Your task to perform on an android device: Open location settings Image 0: 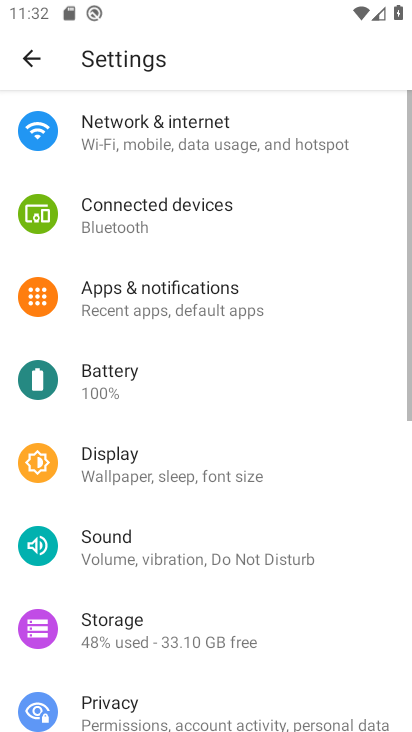
Step 0: drag from (150, 666) to (217, 253)
Your task to perform on an android device: Open location settings Image 1: 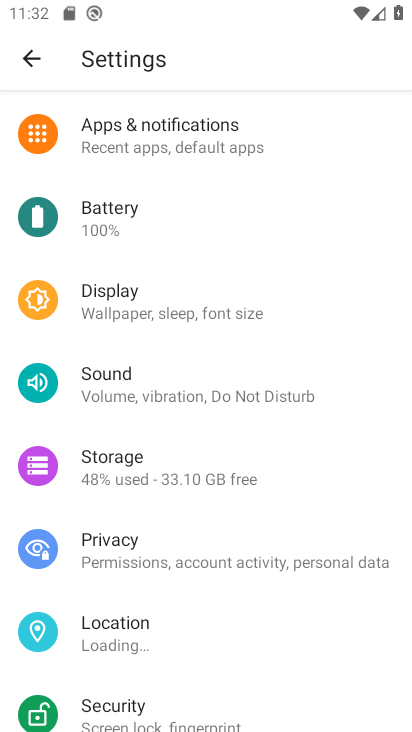
Step 1: click (140, 645)
Your task to perform on an android device: Open location settings Image 2: 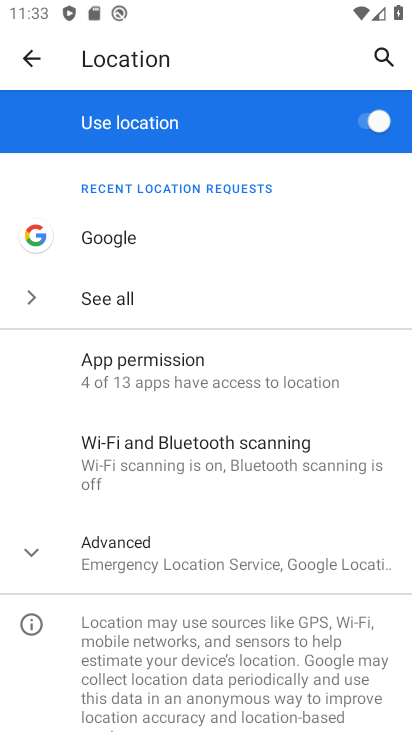
Step 2: click (35, 551)
Your task to perform on an android device: Open location settings Image 3: 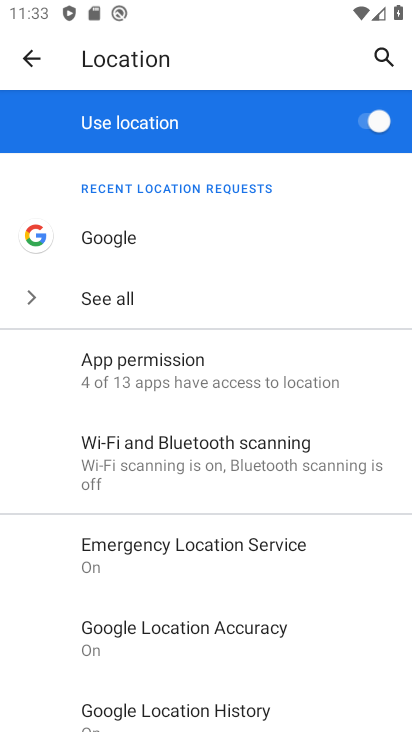
Step 3: task complete